Your task to perform on an android device: visit the assistant section in the google photos Image 0: 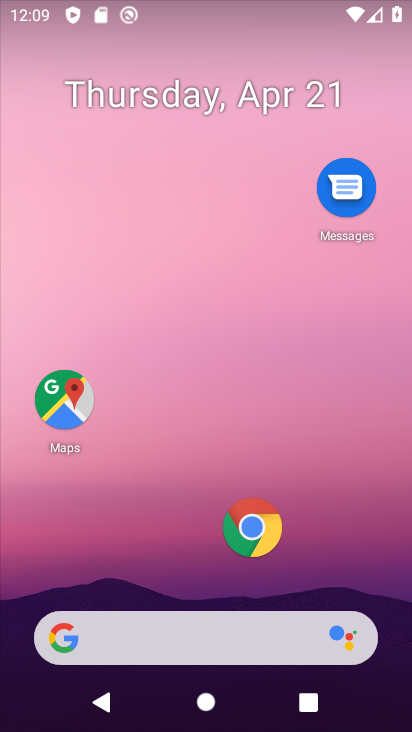
Step 0: drag from (311, 567) to (285, 191)
Your task to perform on an android device: visit the assistant section in the google photos Image 1: 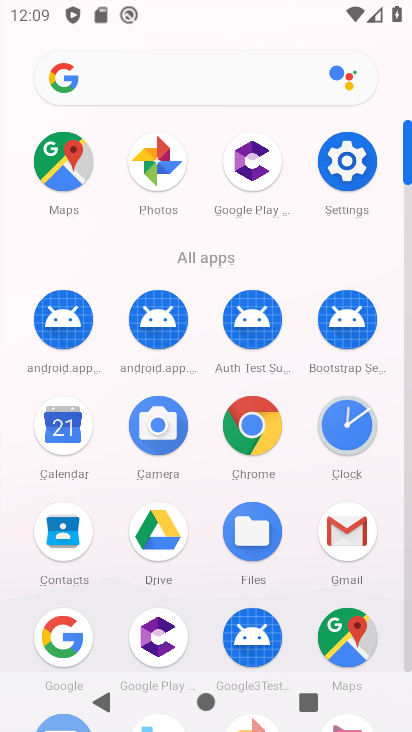
Step 1: click (155, 161)
Your task to perform on an android device: visit the assistant section in the google photos Image 2: 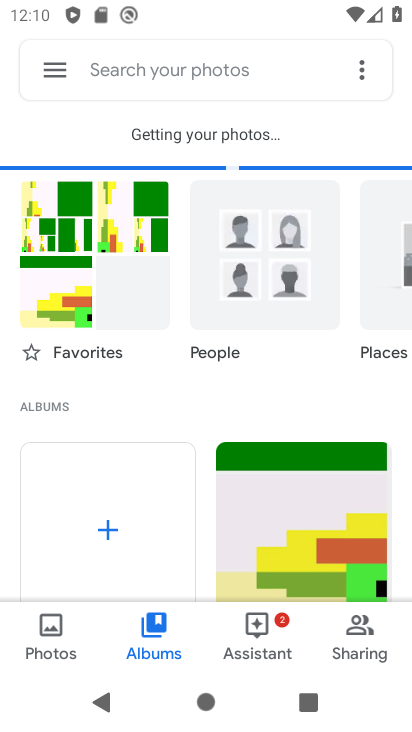
Step 2: click (246, 649)
Your task to perform on an android device: visit the assistant section in the google photos Image 3: 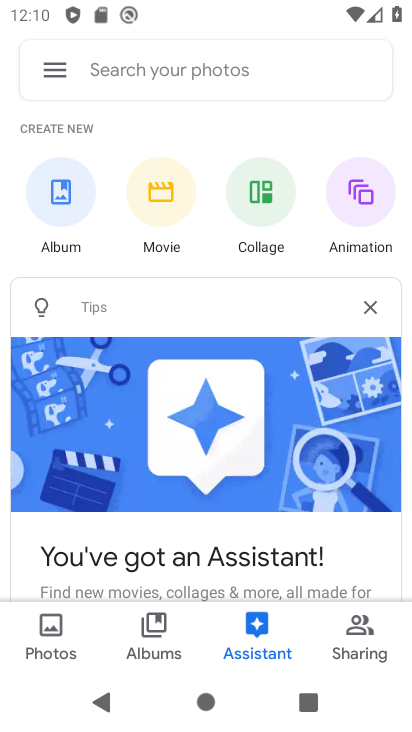
Step 3: task complete